Your task to perform on an android device: Go to battery settings Image 0: 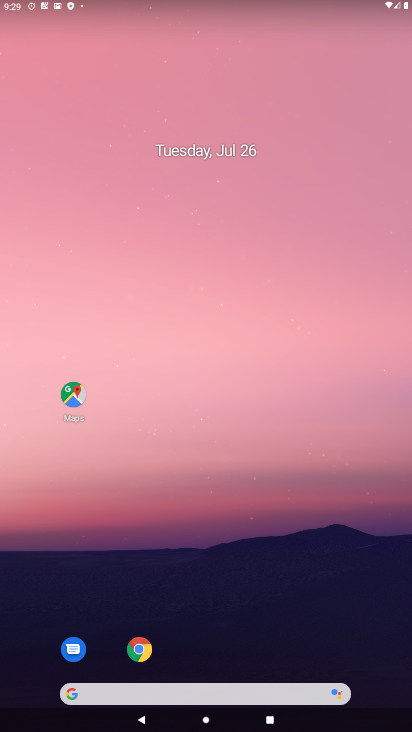
Step 0: drag from (169, 638) to (179, 126)
Your task to perform on an android device: Go to battery settings Image 1: 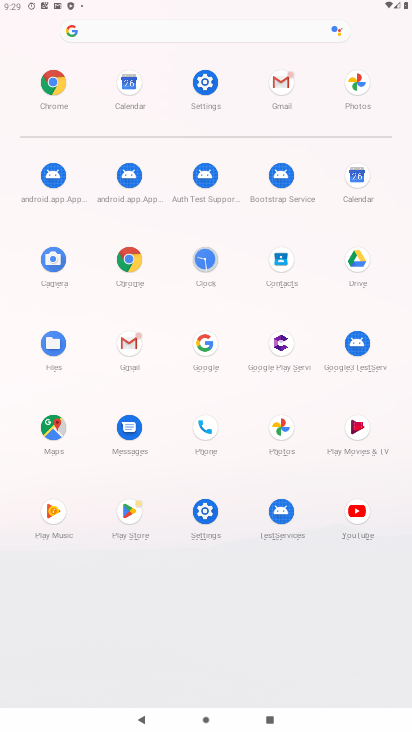
Step 1: click (215, 510)
Your task to perform on an android device: Go to battery settings Image 2: 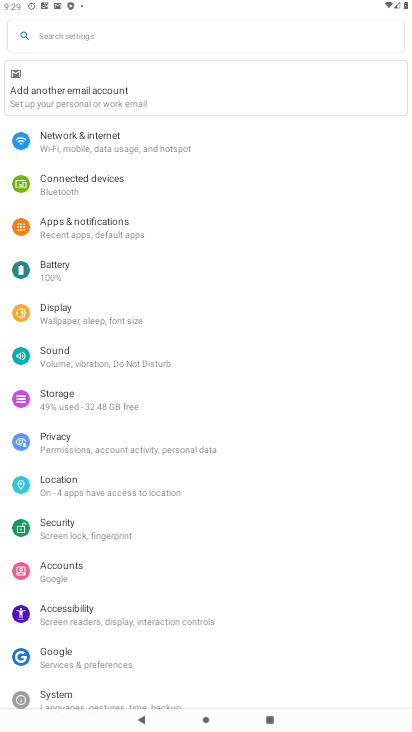
Step 2: click (116, 268)
Your task to perform on an android device: Go to battery settings Image 3: 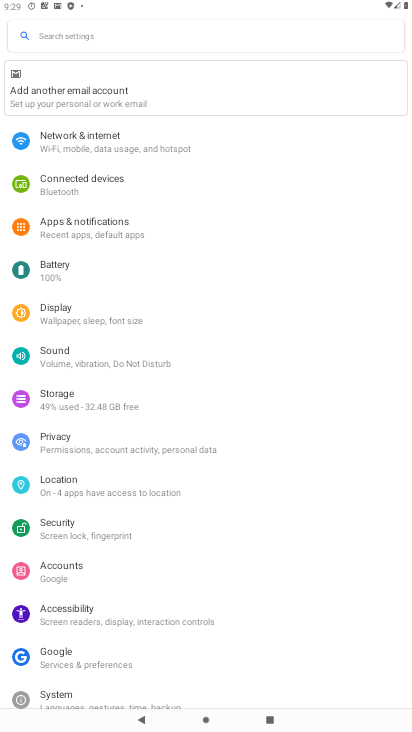
Step 3: click (116, 268)
Your task to perform on an android device: Go to battery settings Image 4: 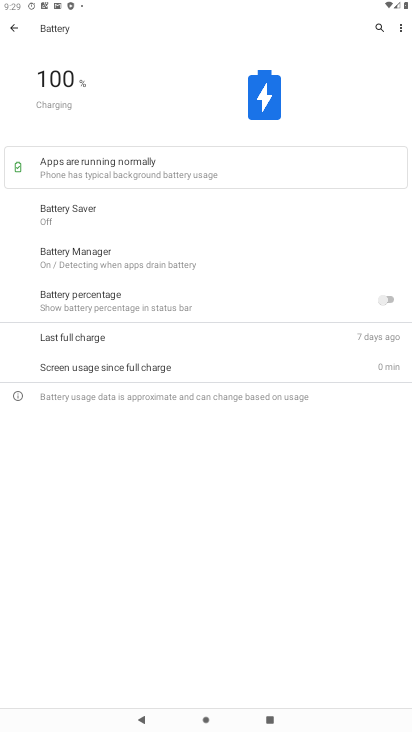
Step 4: task complete